Your task to perform on an android device: Is it going to rain this weekend? Image 0: 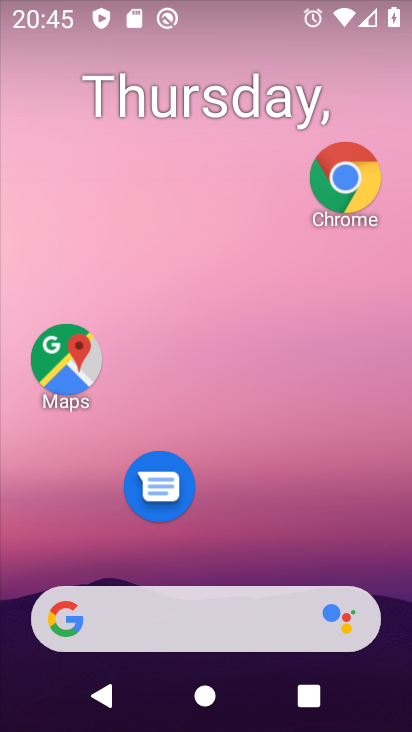
Step 0: click (218, 625)
Your task to perform on an android device: Is it going to rain this weekend? Image 1: 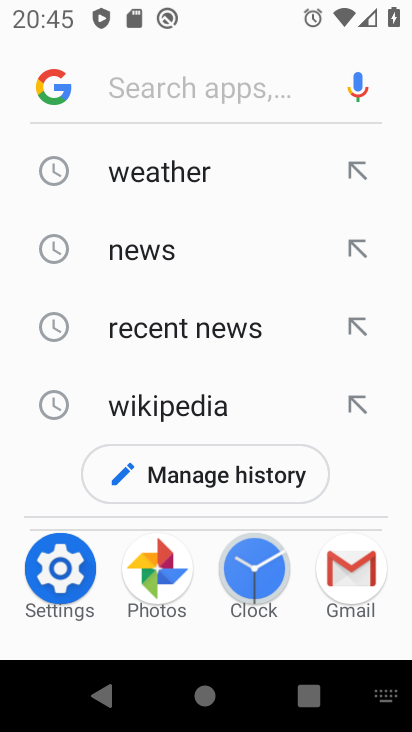
Step 1: click (182, 171)
Your task to perform on an android device: Is it going to rain this weekend? Image 2: 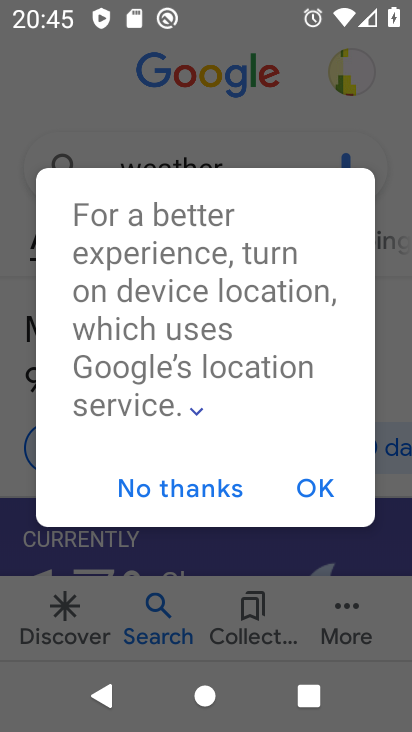
Step 2: click (299, 481)
Your task to perform on an android device: Is it going to rain this weekend? Image 3: 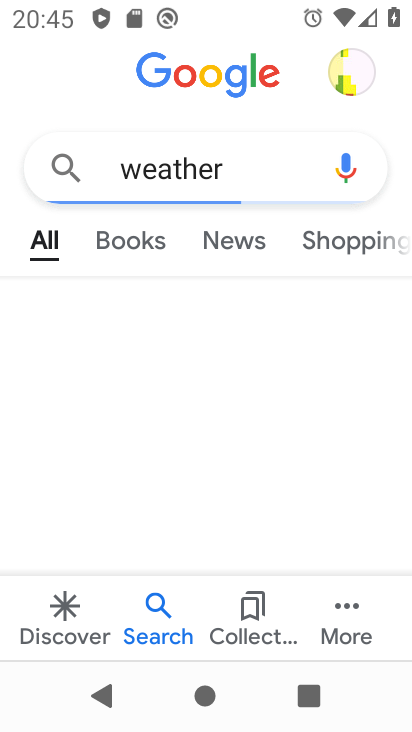
Step 3: click (359, 459)
Your task to perform on an android device: Is it going to rain this weekend? Image 4: 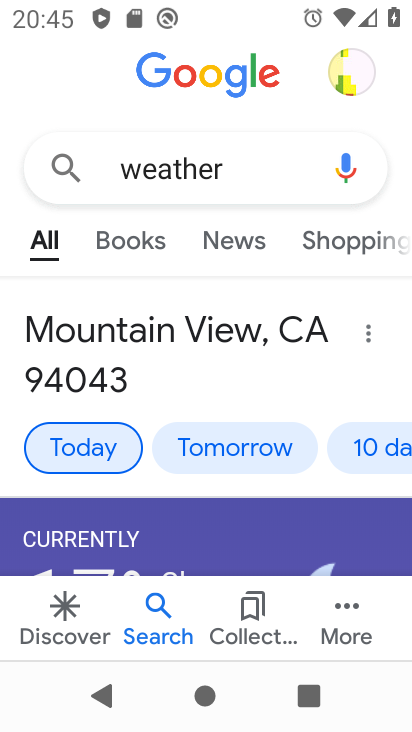
Step 4: click (359, 459)
Your task to perform on an android device: Is it going to rain this weekend? Image 5: 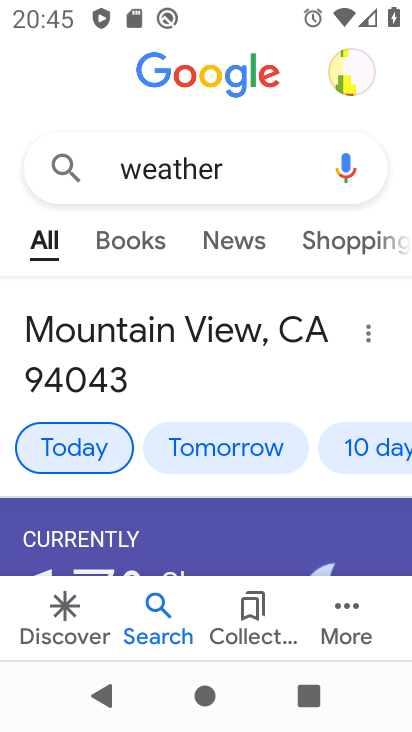
Step 5: click (337, 460)
Your task to perform on an android device: Is it going to rain this weekend? Image 6: 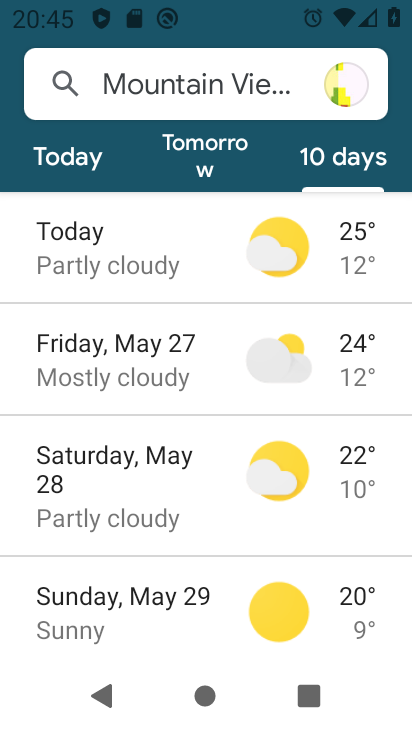
Step 6: task complete